Your task to perform on an android device: change the clock display to show seconds Image 0: 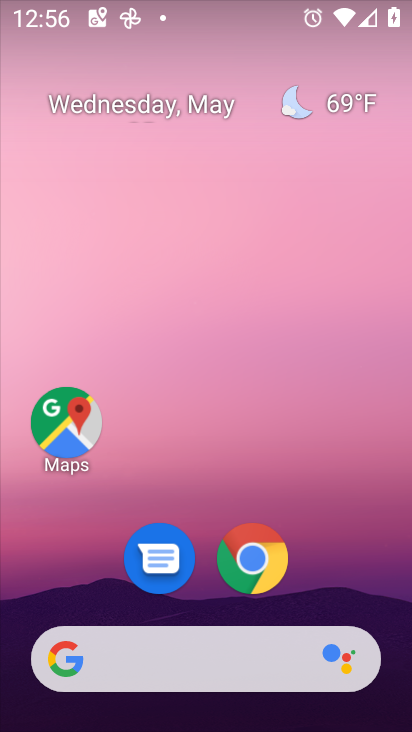
Step 0: drag from (404, 627) to (299, 9)
Your task to perform on an android device: change the clock display to show seconds Image 1: 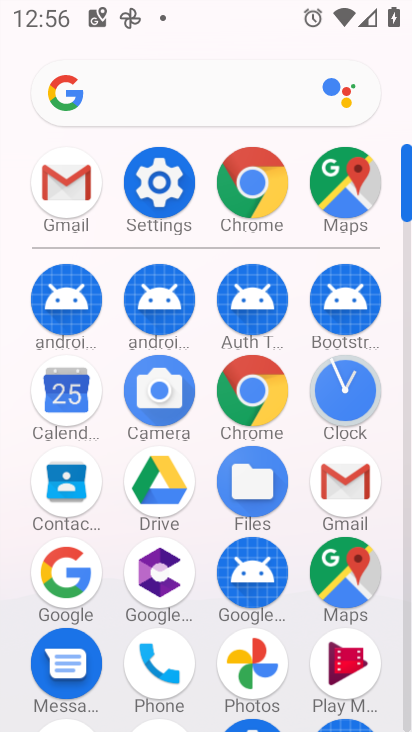
Step 1: click (366, 401)
Your task to perform on an android device: change the clock display to show seconds Image 2: 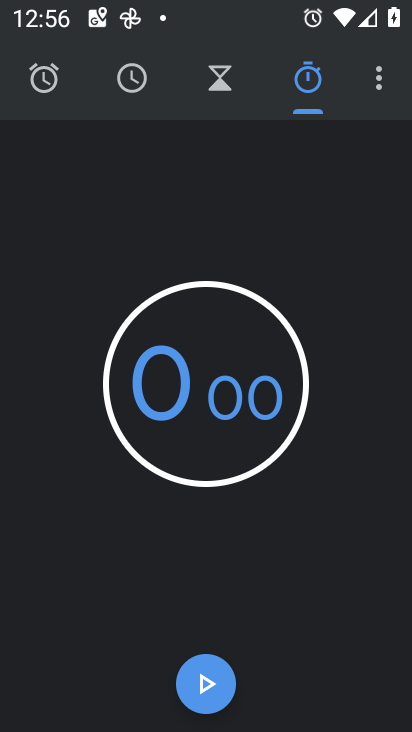
Step 2: click (386, 77)
Your task to perform on an android device: change the clock display to show seconds Image 3: 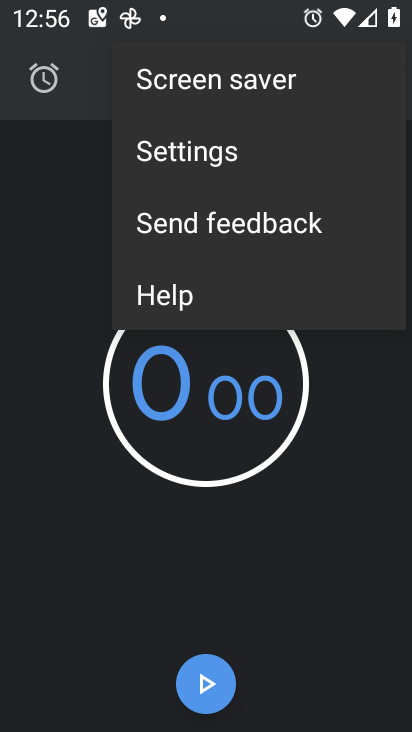
Step 3: click (238, 163)
Your task to perform on an android device: change the clock display to show seconds Image 4: 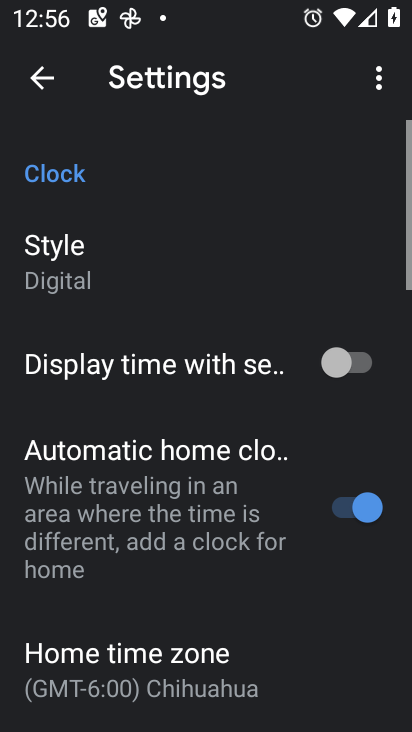
Step 4: click (302, 368)
Your task to perform on an android device: change the clock display to show seconds Image 5: 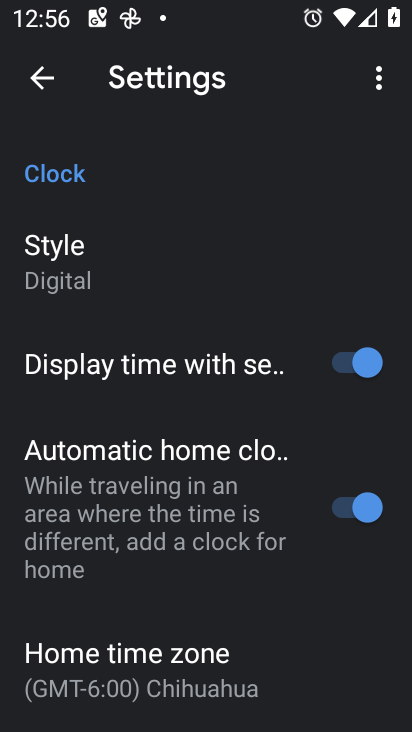
Step 5: task complete